Your task to perform on an android device: Open ESPN.com Image 0: 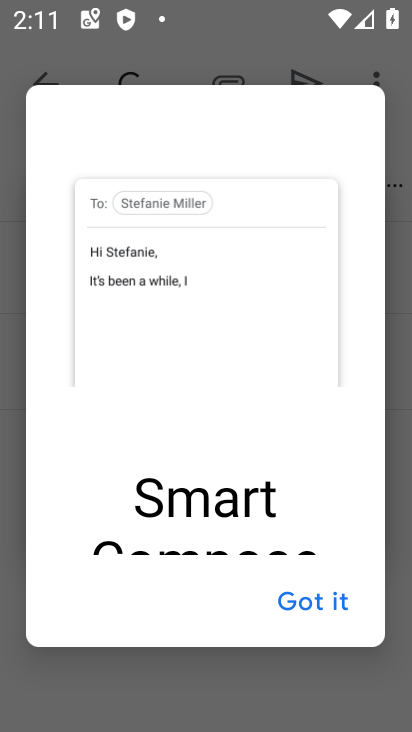
Step 0: press home button
Your task to perform on an android device: Open ESPN.com Image 1: 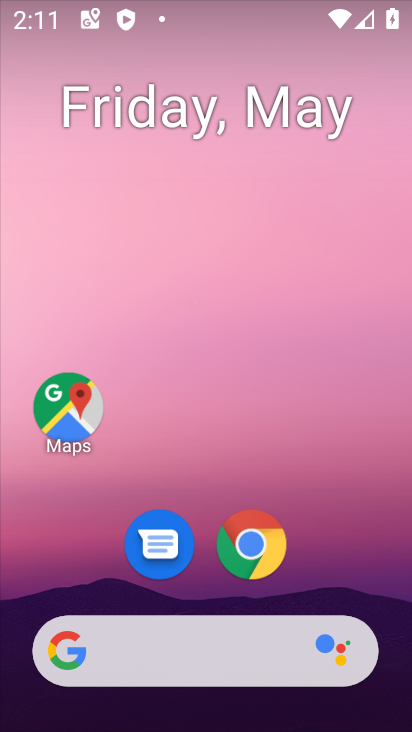
Step 1: click (226, 562)
Your task to perform on an android device: Open ESPN.com Image 2: 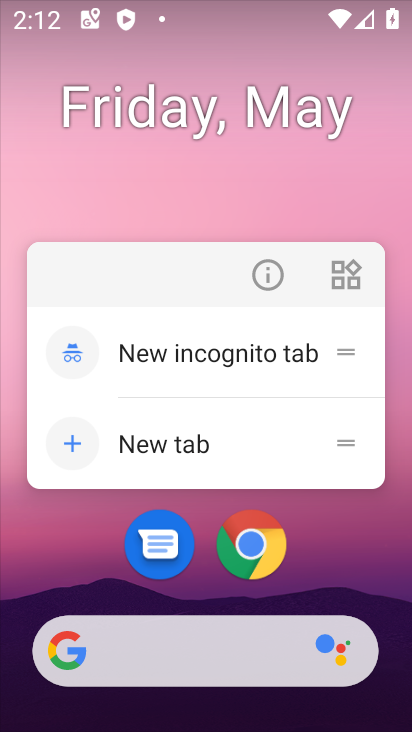
Step 2: click (226, 562)
Your task to perform on an android device: Open ESPN.com Image 3: 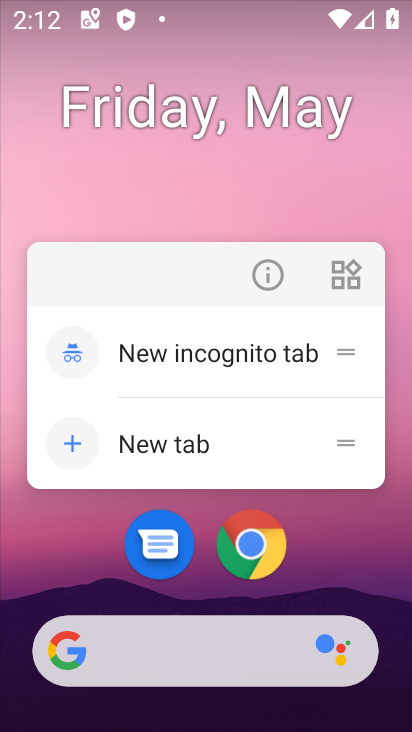
Step 3: click (230, 545)
Your task to perform on an android device: Open ESPN.com Image 4: 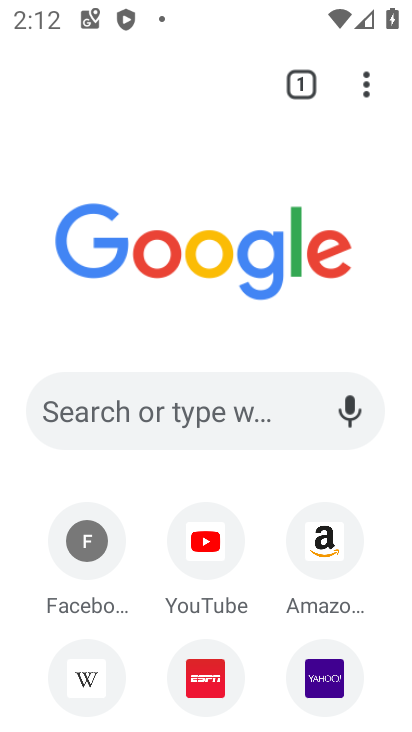
Step 4: drag from (121, 572) to (139, 330)
Your task to perform on an android device: Open ESPN.com Image 5: 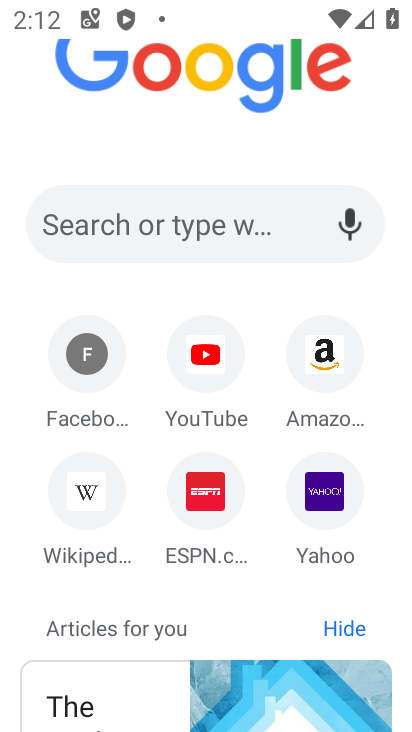
Step 5: click (226, 524)
Your task to perform on an android device: Open ESPN.com Image 6: 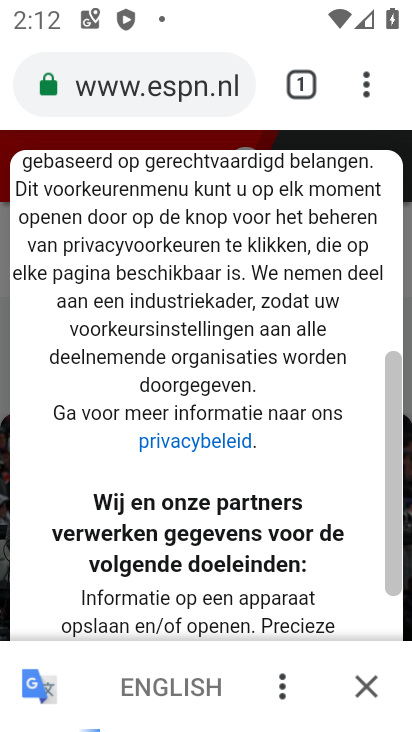
Step 6: task complete